Your task to perform on an android device: Open Google Chrome and open the bookmarks view Image 0: 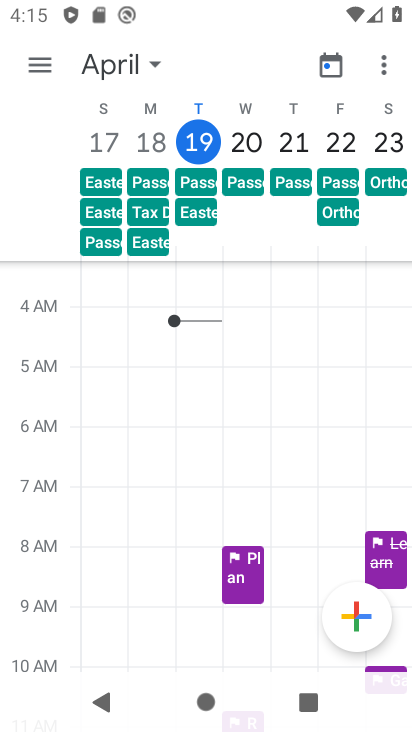
Step 0: press home button
Your task to perform on an android device: Open Google Chrome and open the bookmarks view Image 1: 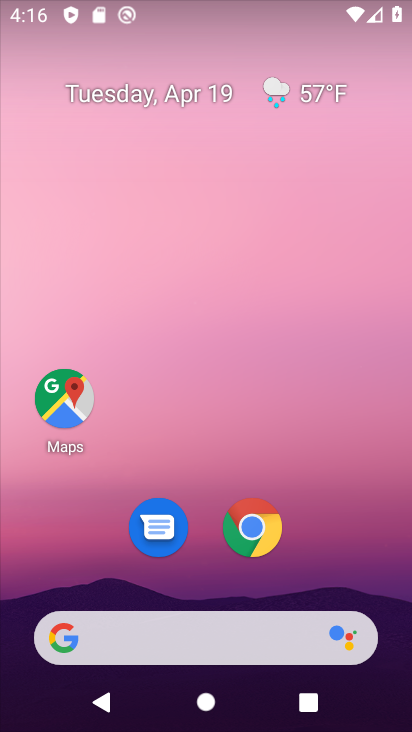
Step 1: click (250, 526)
Your task to perform on an android device: Open Google Chrome and open the bookmarks view Image 2: 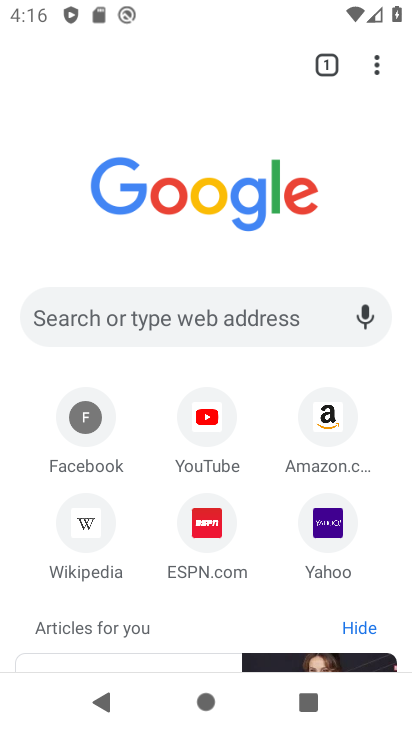
Step 2: click (376, 70)
Your task to perform on an android device: Open Google Chrome and open the bookmarks view Image 3: 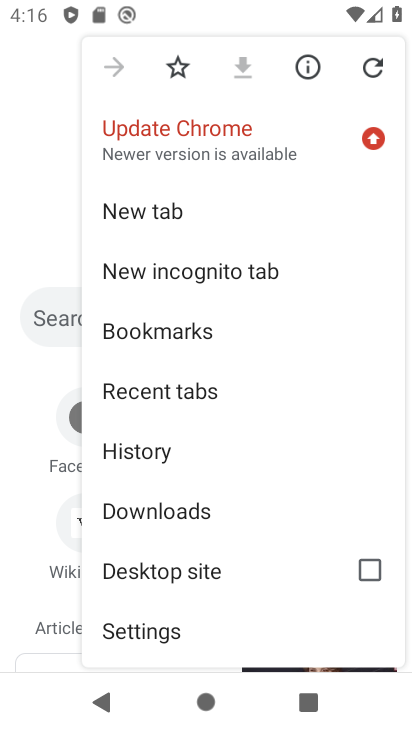
Step 3: click (163, 333)
Your task to perform on an android device: Open Google Chrome and open the bookmarks view Image 4: 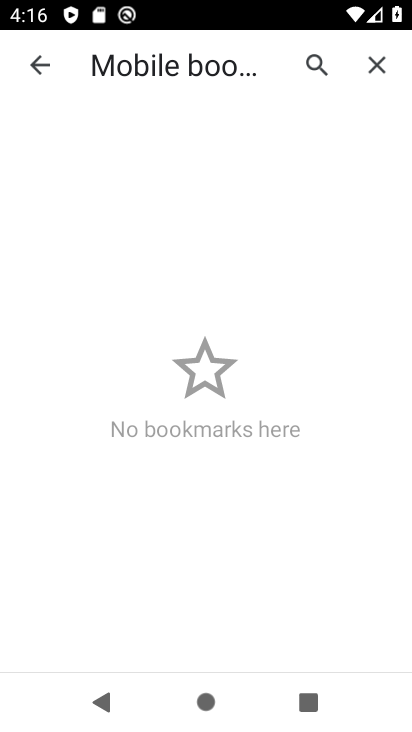
Step 4: task complete